Your task to perform on an android device: Open maps Image 0: 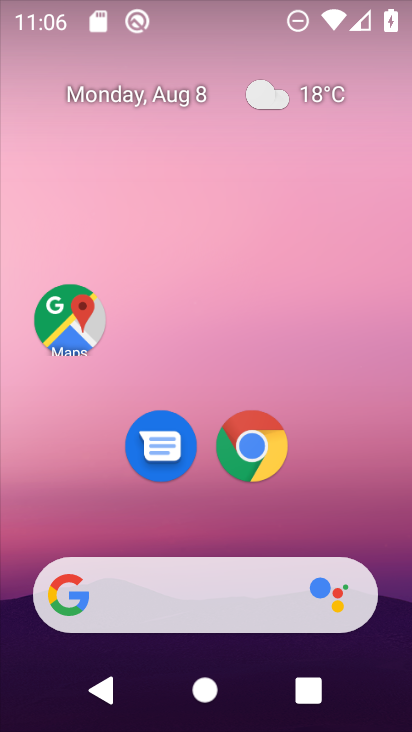
Step 0: click (73, 321)
Your task to perform on an android device: Open maps Image 1: 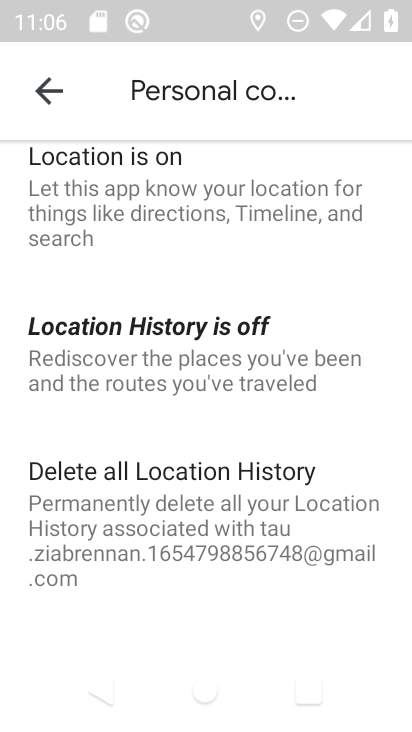
Step 1: task complete